Your task to perform on an android device: turn off location history Image 0: 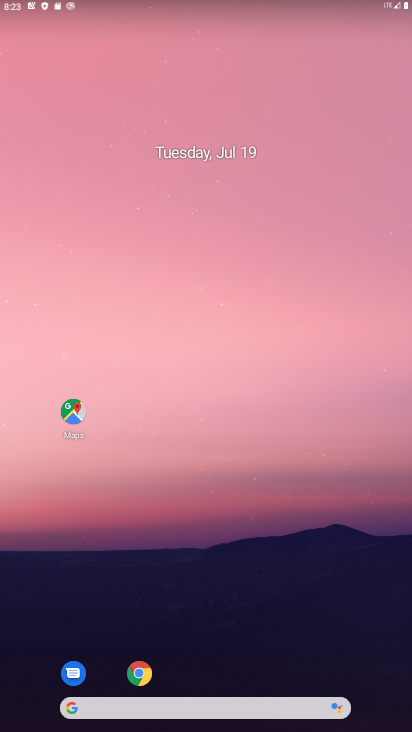
Step 0: click (235, 88)
Your task to perform on an android device: turn off location history Image 1: 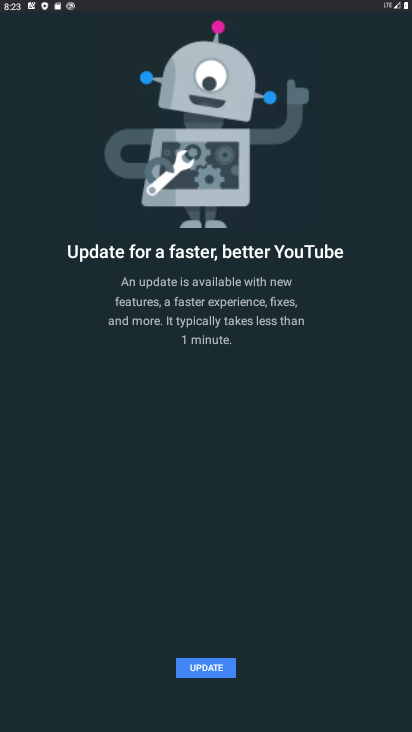
Step 1: press home button
Your task to perform on an android device: turn off location history Image 2: 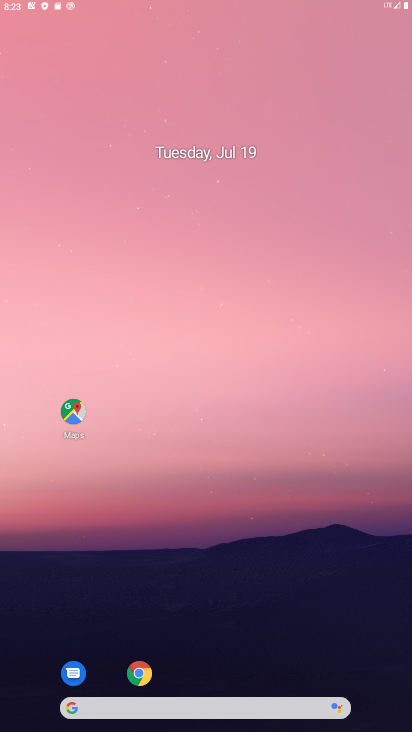
Step 2: drag from (367, 690) to (185, 58)
Your task to perform on an android device: turn off location history Image 3: 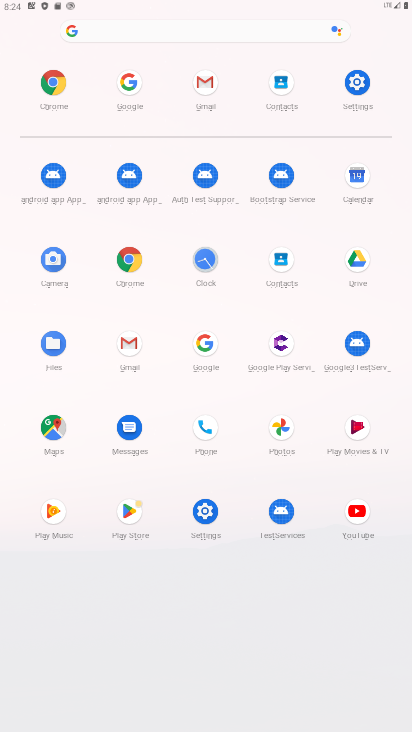
Step 3: click (213, 519)
Your task to perform on an android device: turn off location history Image 4: 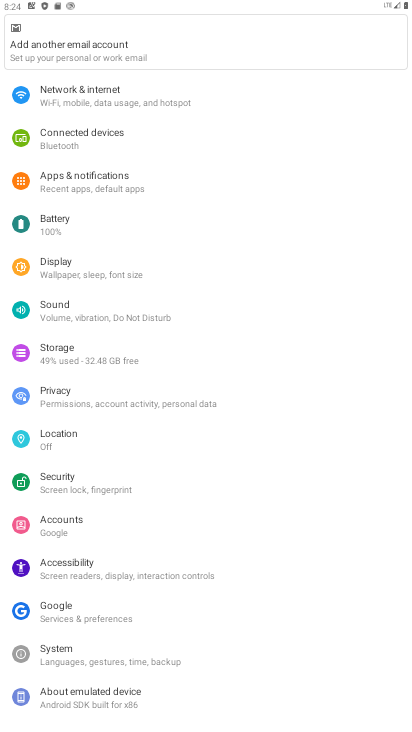
Step 4: click (104, 452)
Your task to perform on an android device: turn off location history Image 5: 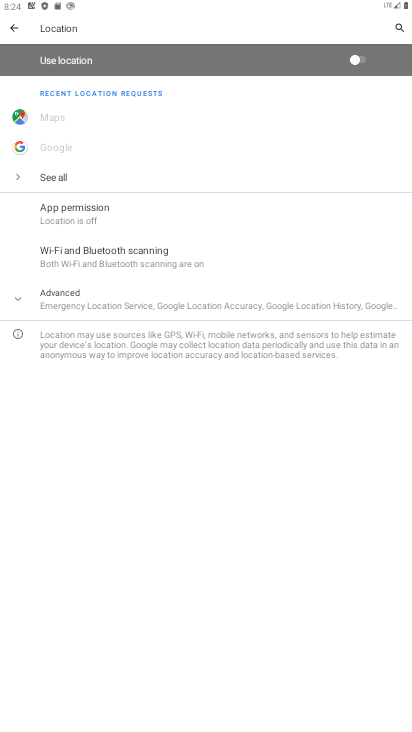
Step 5: click (62, 295)
Your task to perform on an android device: turn off location history Image 6: 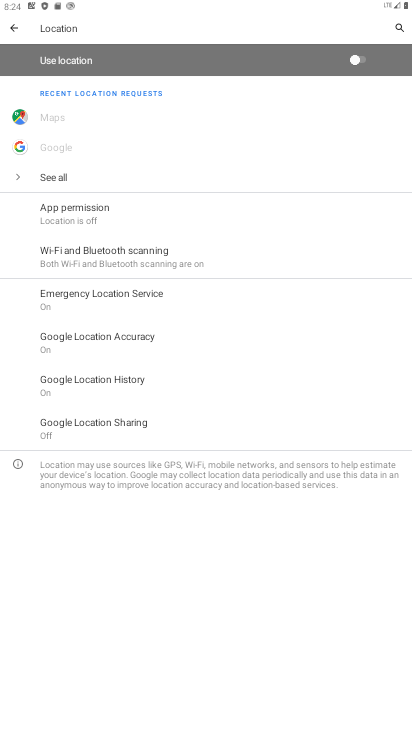
Step 6: click (85, 384)
Your task to perform on an android device: turn off location history Image 7: 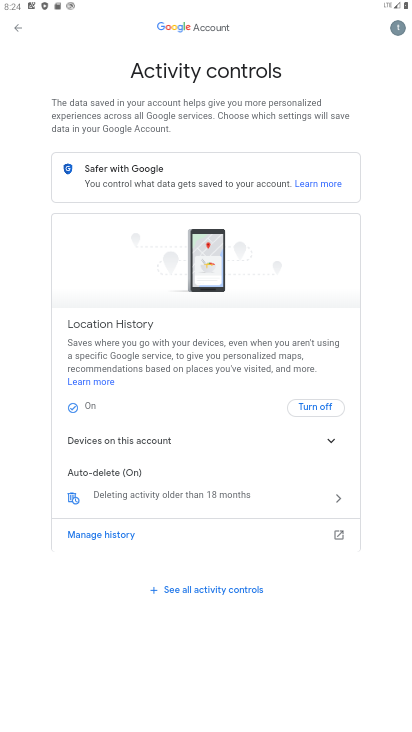
Step 7: task complete